Your task to perform on an android device: Add "apple airpods" to the cart on amazon.com Image 0: 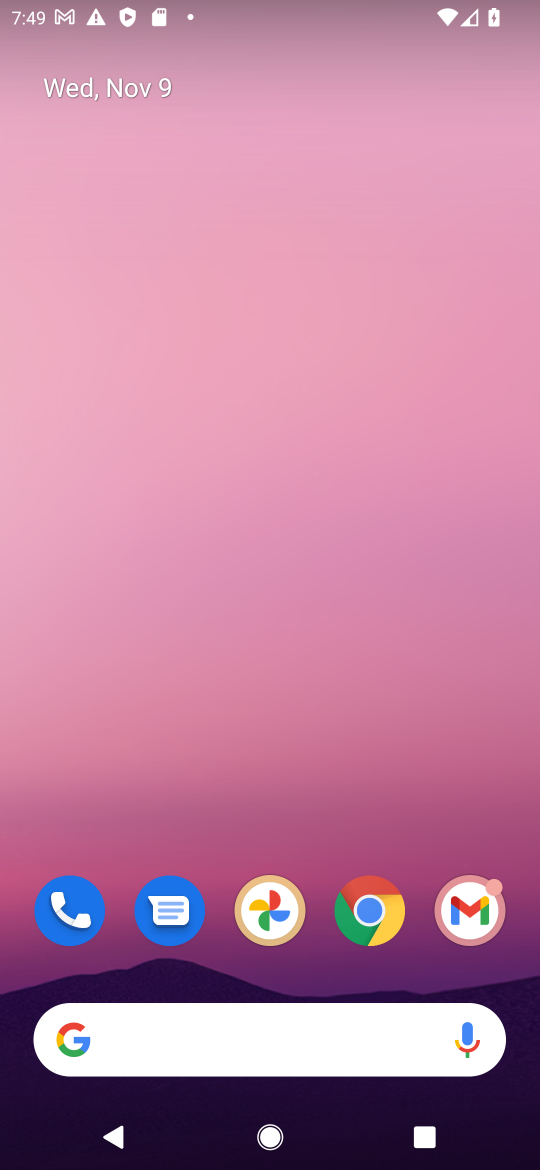
Step 0: click (373, 919)
Your task to perform on an android device: Add "apple airpods" to the cart on amazon.com Image 1: 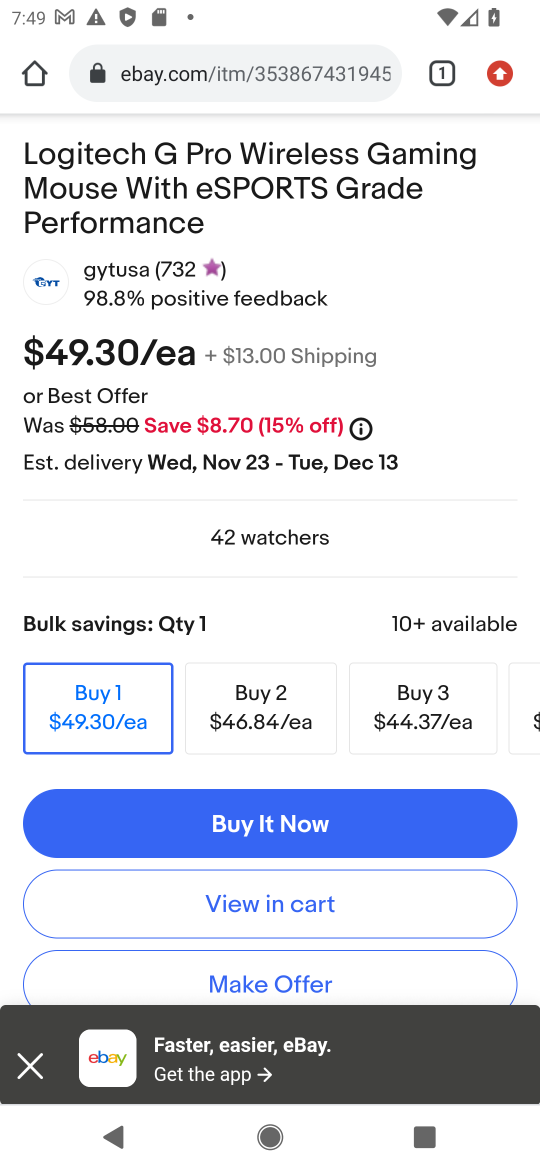
Step 1: click (226, 81)
Your task to perform on an android device: Add "apple airpods" to the cart on amazon.com Image 2: 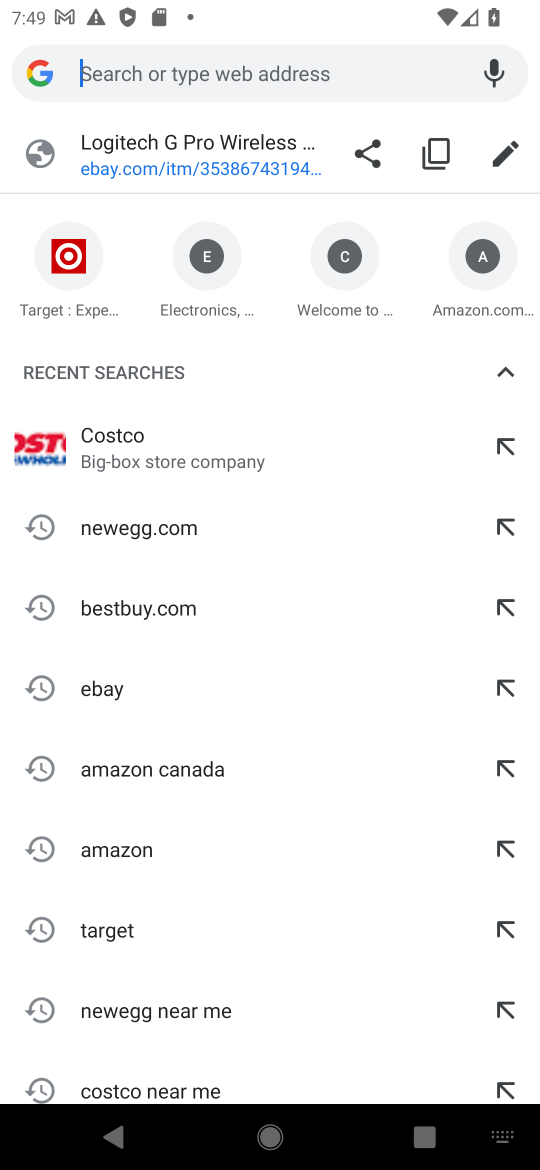
Step 2: click (496, 267)
Your task to perform on an android device: Add "apple airpods" to the cart on amazon.com Image 3: 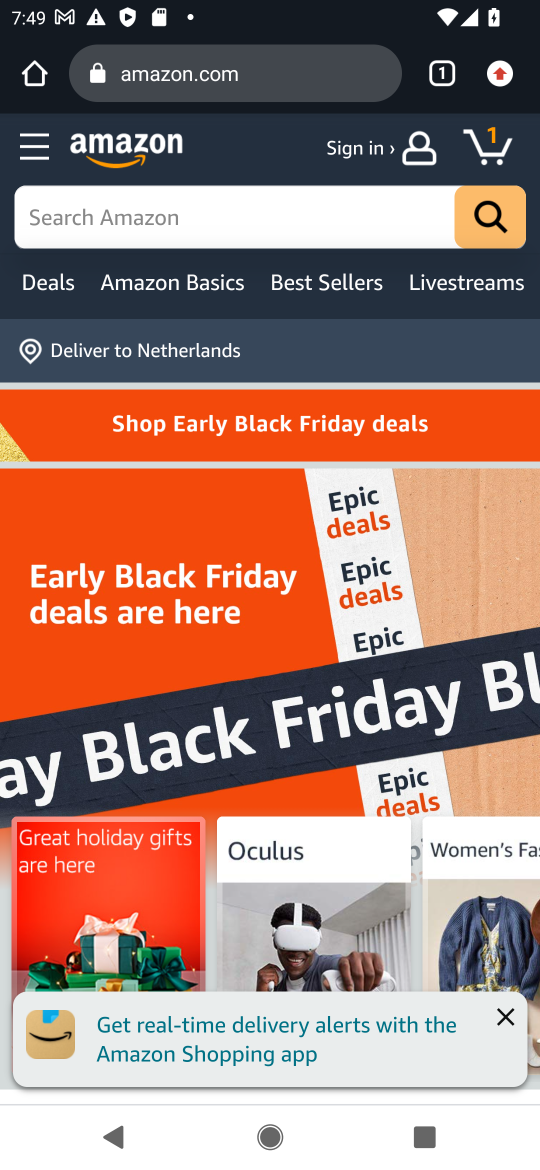
Step 3: click (113, 224)
Your task to perform on an android device: Add "apple airpods" to the cart on amazon.com Image 4: 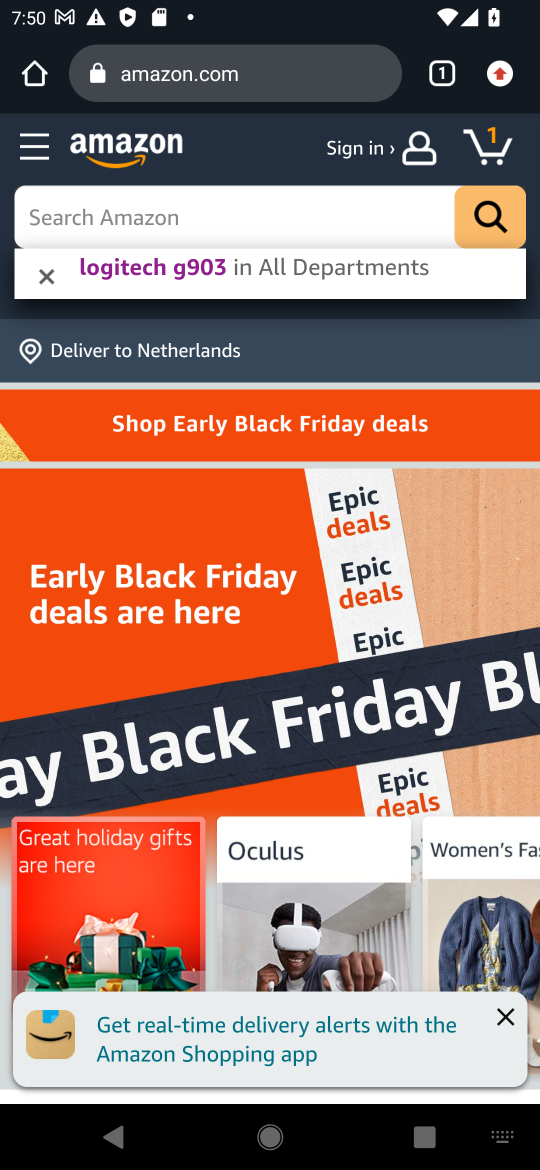
Step 4: type "apple airpods"
Your task to perform on an android device: Add "apple airpods" to the cart on amazon.com Image 5: 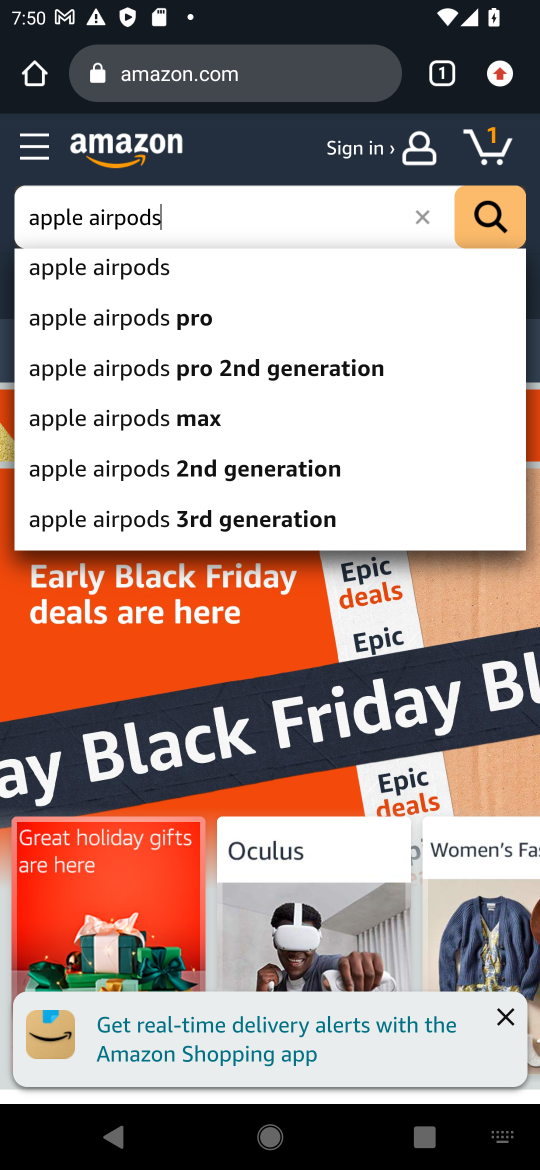
Step 5: click (103, 278)
Your task to perform on an android device: Add "apple airpods" to the cart on amazon.com Image 6: 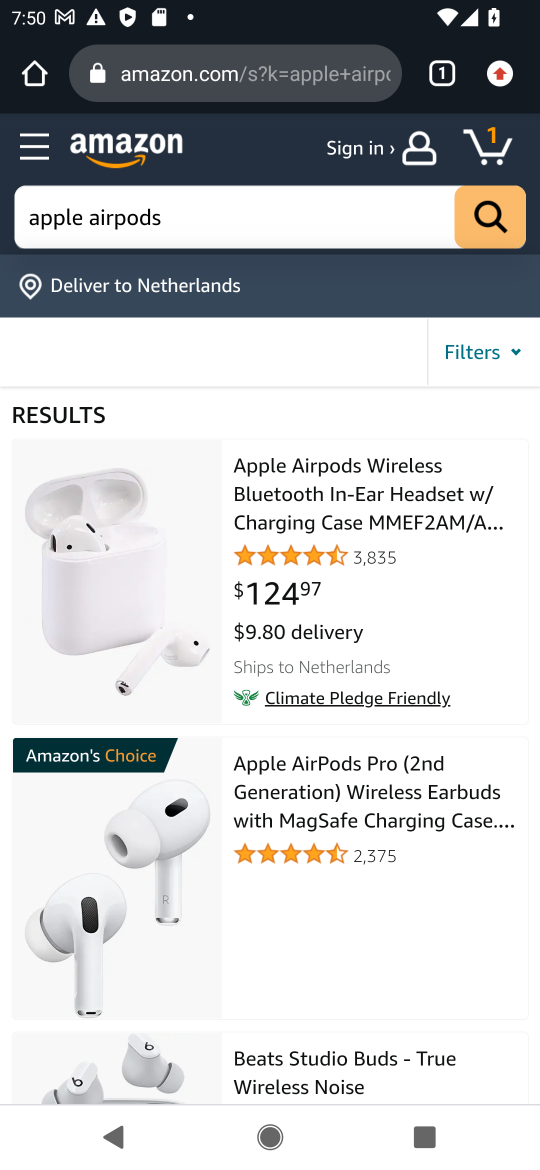
Step 6: drag from (229, 843) to (253, 512)
Your task to perform on an android device: Add "apple airpods" to the cart on amazon.com Image 7: 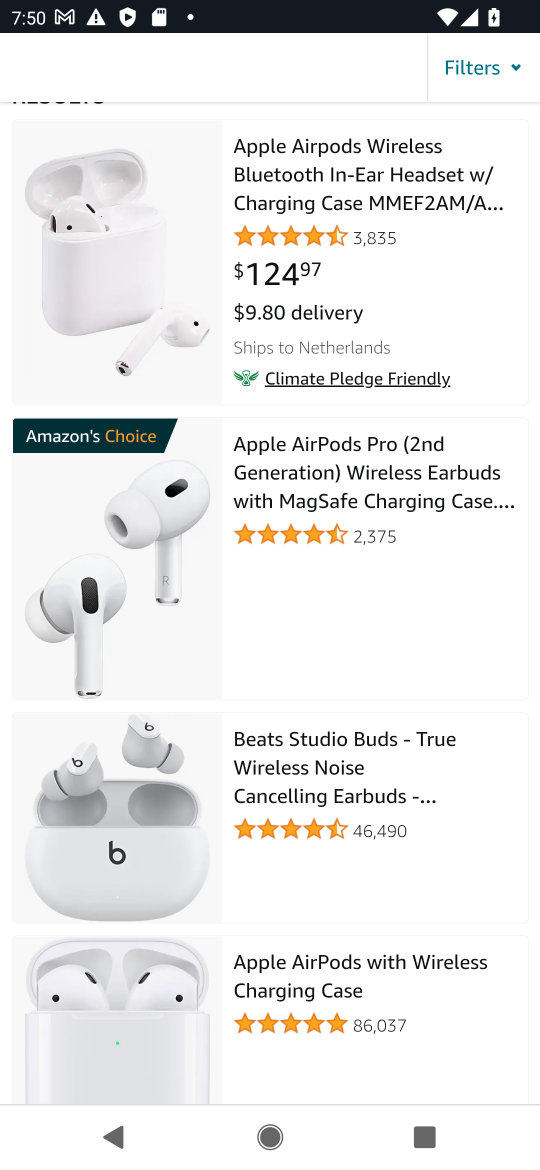
Step 7: drag from (227, 828) to (231, 574)
Your task to perform on an android device: Add "apple airpods" to the cart on amazon.com Image 8: 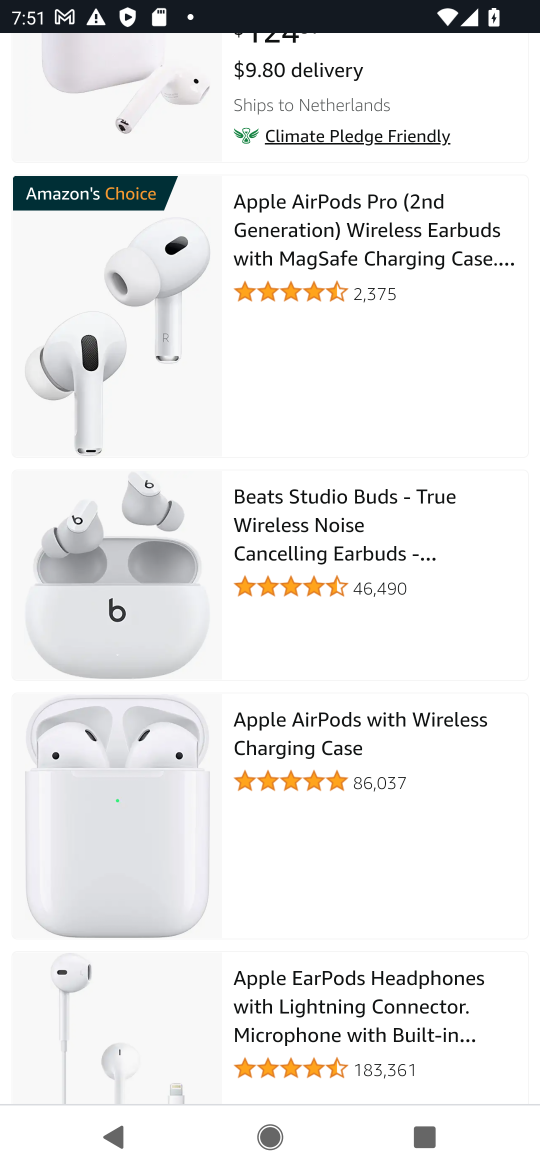
Step 8: drag from (191, 407) to (233, 653)
Your task to perform on an android device: Add "apple airpods" to the cart on amazon.com Image 9: 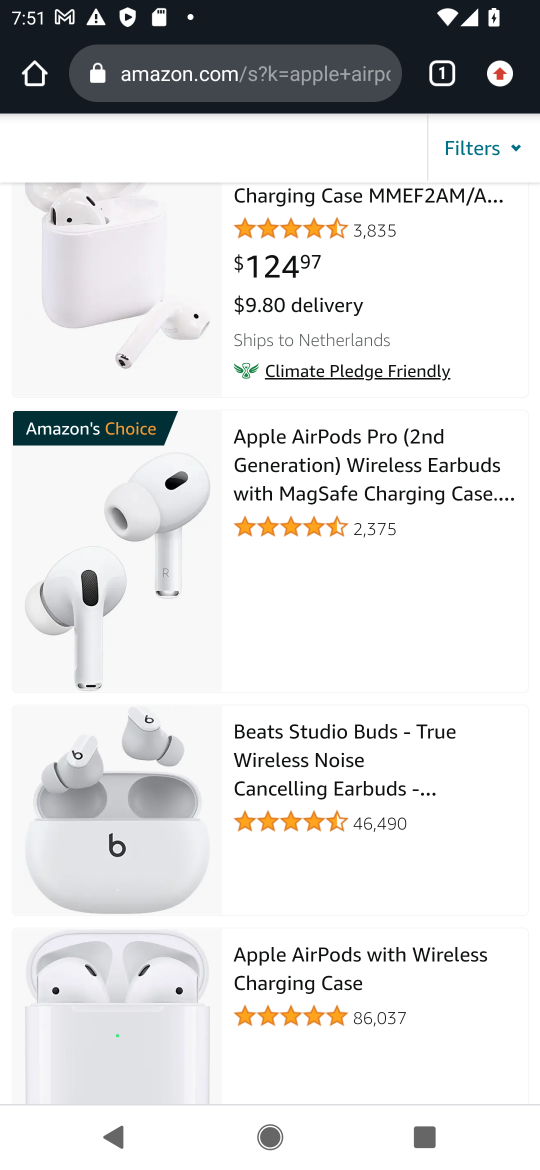
Step 9: drag from (214, 358) to (249, 806)
Your task to perform on an android device: Add "apple airpods" to the cart on amazon.com Image 10: 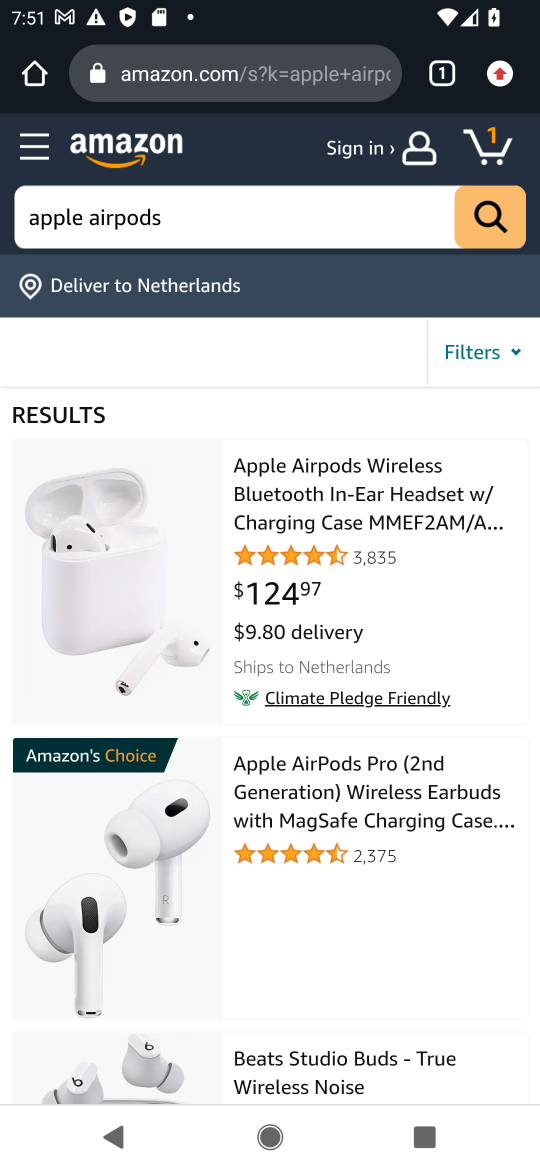
Step 10: click (155, 600)
Your task to perform on an android device: Add "apple airpods" to the cart on amazon.com Image 11: 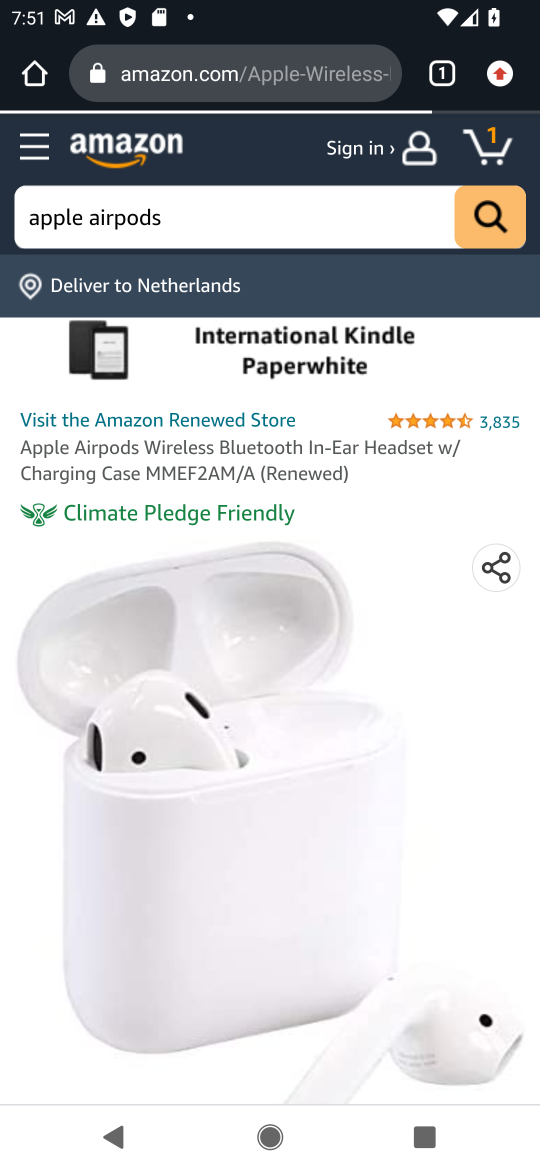
Step 11: drag from (254, 821) to (228, 491)
Your task to perform on an android device: Add "apple airpods" to the cart on amazon.com Image 12: 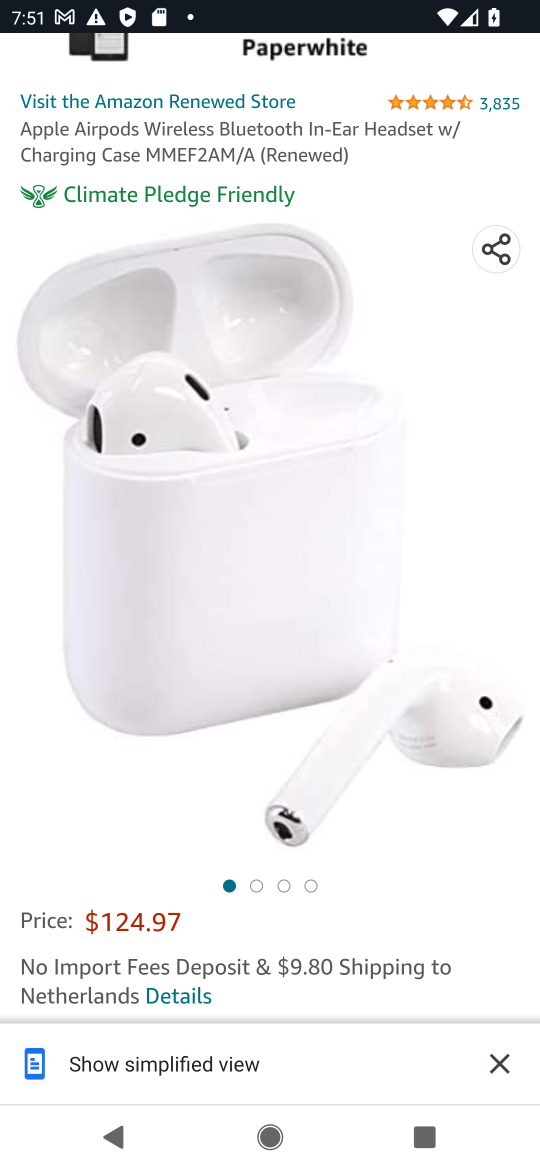
Step 12: drag from (224, 723) to (185, 364)
Your task to perform on an android device: Add "apple airpods" to the cart on amazon.com Image 13: 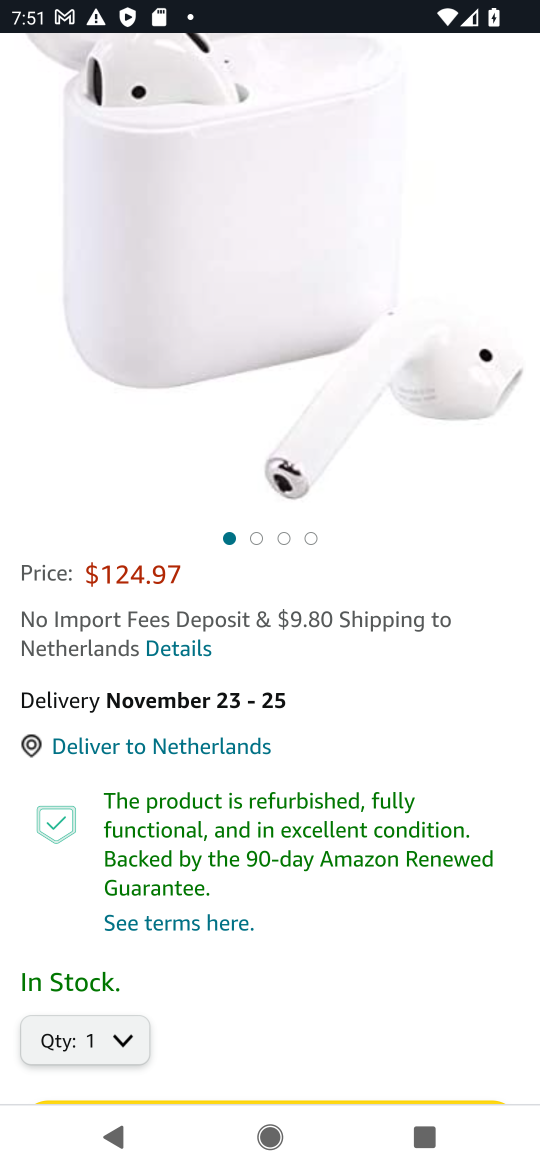
Step 13: drag from (273, 748) to (223, 303)
Your task to perform on an android device: Add "apple airpods" to the cart on amazon.com Image 14: 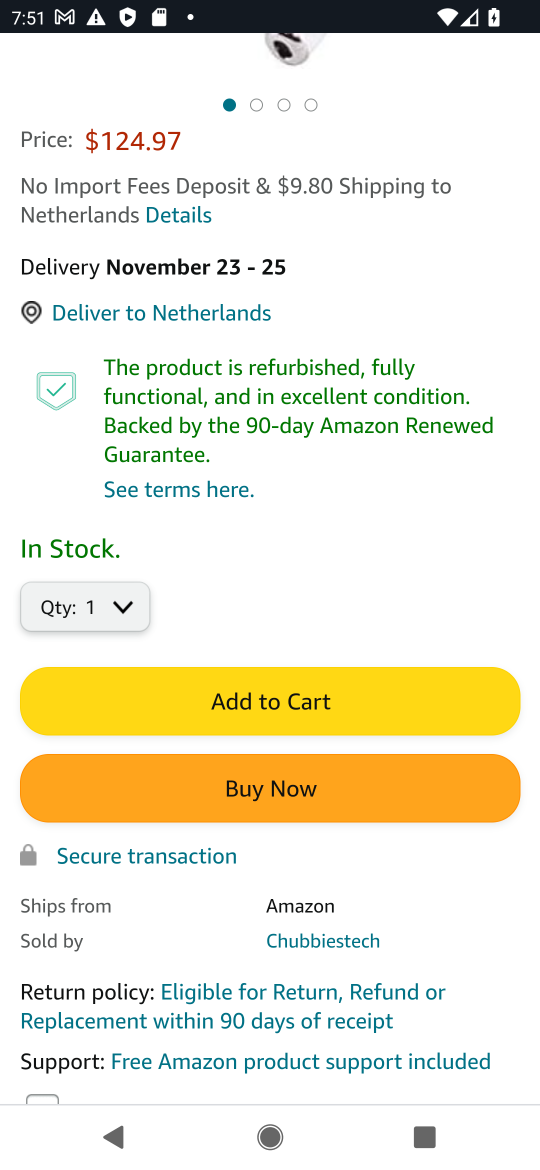
Step 14: click (269, 700)
Your task to perform on an android device: Add "apple airpods" to the cart on amazon.com Image 15: 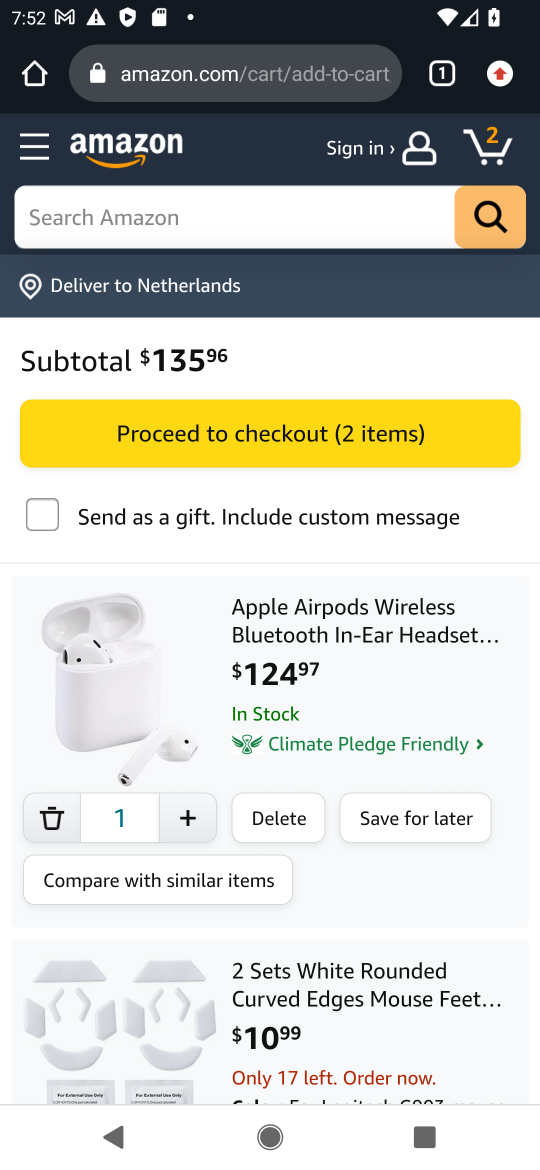
Step 15: task complete